Your task to perform on an android device: find snoozed emails in the gmail app Image 0: 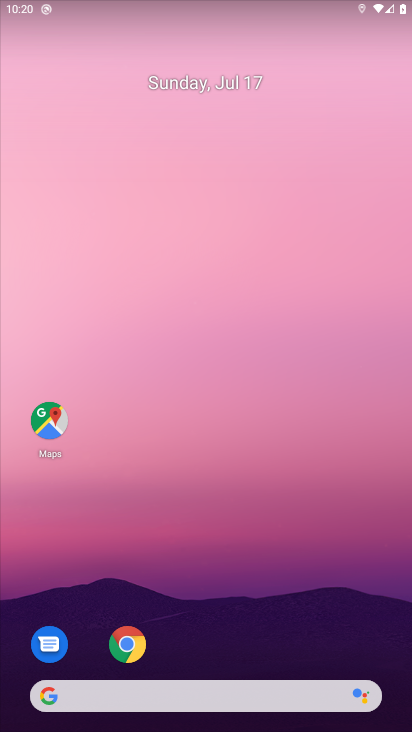
Step 0: drag from (311, 666) to (361, 98)
Your task to perform on an android device: find snoozed emails in the gmail app Image 1: 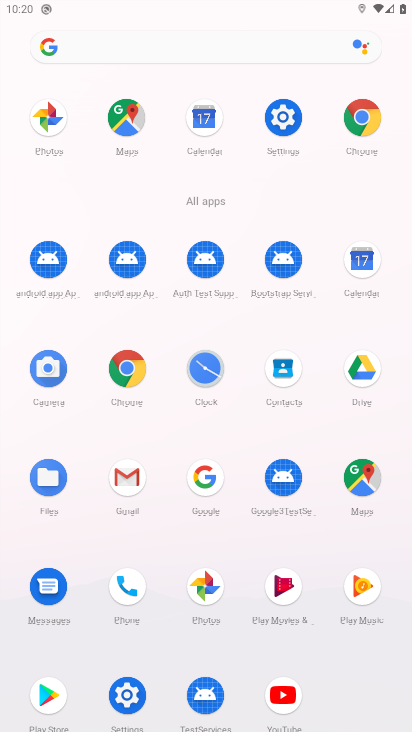
Step 1: click (271, 116)
Your task to perform on an android device: find snoozed emails in the gmail app Image 2: 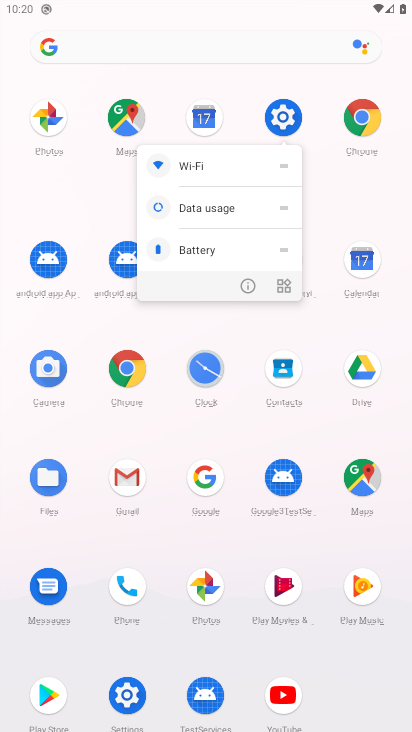
Step 2: click (281, 111)
Your task to perform on an android device: find snoozed emails in the gmail app Image 3: 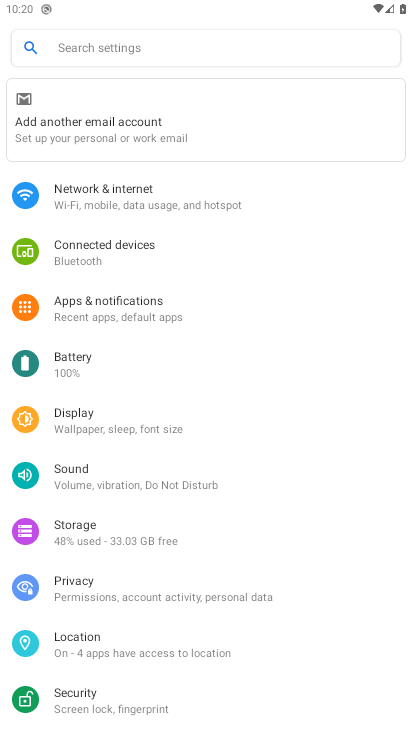
Step 3: press home button
Your task to perform on an android device: find snoozed emails in the gmail app Image 4: 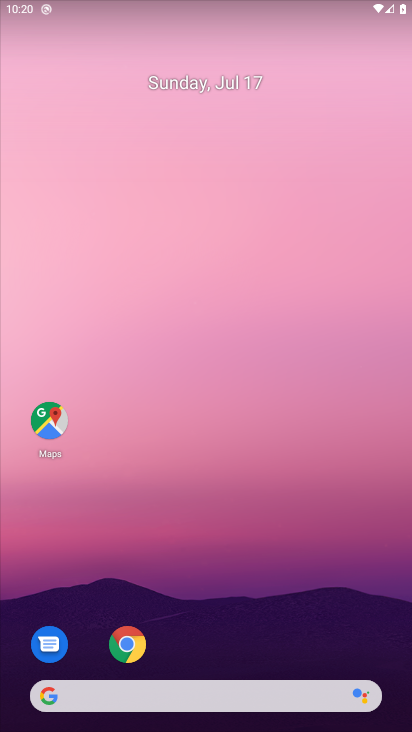
Step 4: drag from (231, 603) to (228, 16)
Your task to perform on an android device: find snoozed emails in the gmail app Image 5: 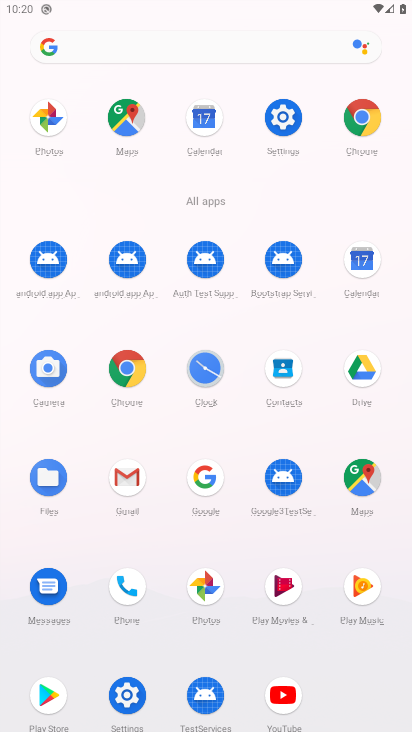
Step 5: click (129, 484)
Your task to perform on an android device: find snoozed emails in the gmail app Image 6: 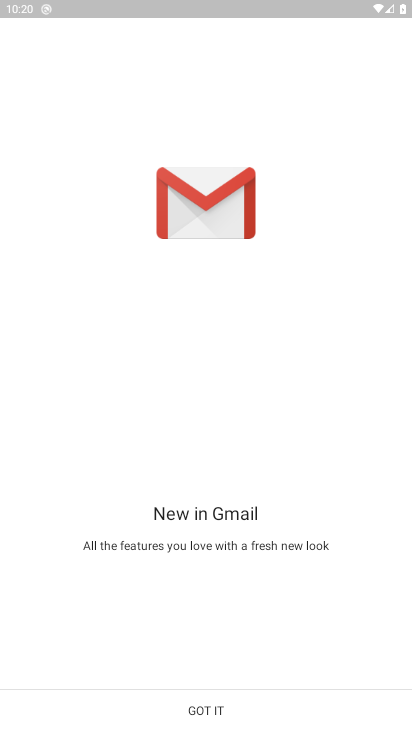
Step 6: click (218, 710)
Your task to perform on an android device: find snoozed emails in the gmail app Image 7: 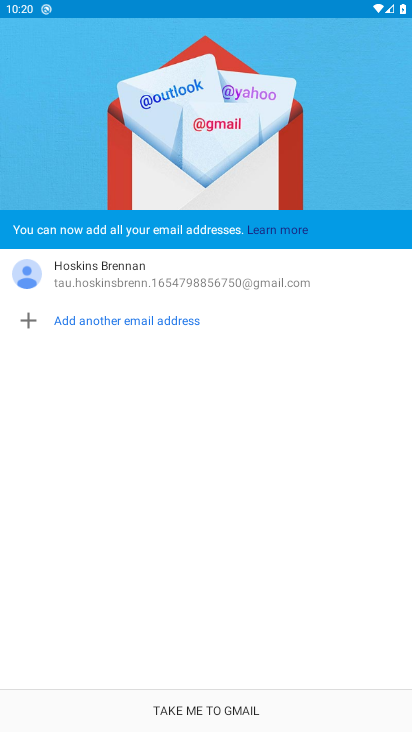
Step 7: click (218, 710)
Your task to perform on an android device: find snoozed emails in the gmail app Image 8: 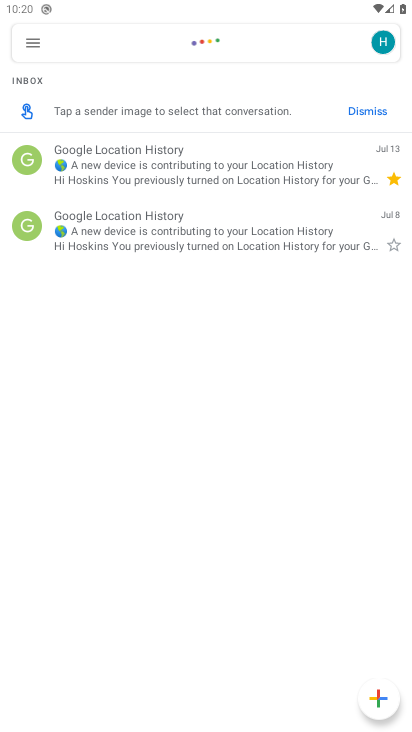
Step 8: click (32, 45)
Your task to perform on an android device: find snoozed emails in the gmail app Image 9: 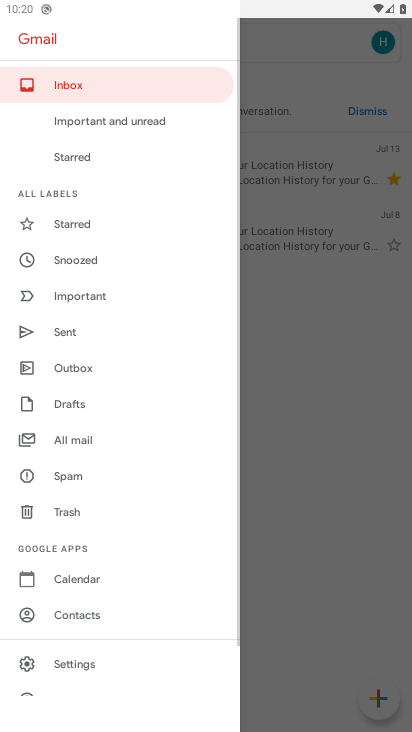
Step 9: click (62, 258)
Your task to perform on an android device: find snoozed emails in the gmail app Image 10: 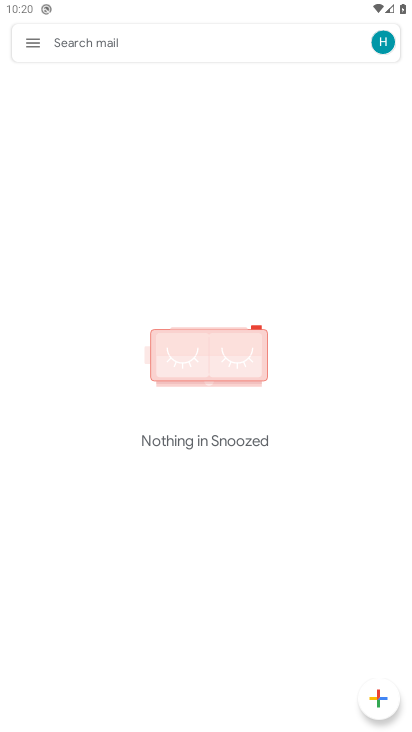
Step 10: task complete